Your task to perform on an android device: turn pop-ups off in chrome Image 0: 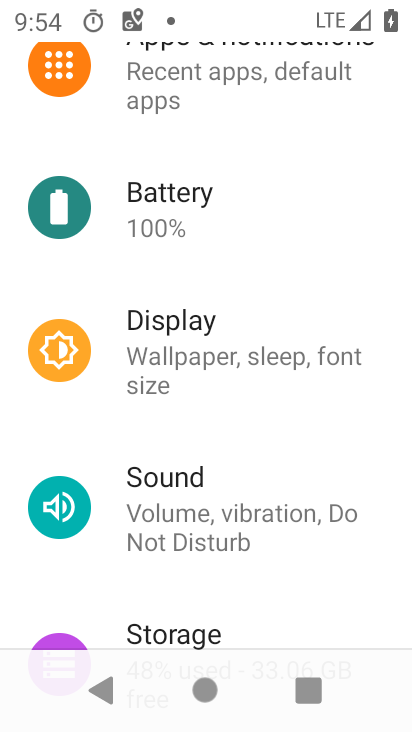
Step 0: press home button
Your task to perform on an android device: turn pop-ups off in chrome Image 1: 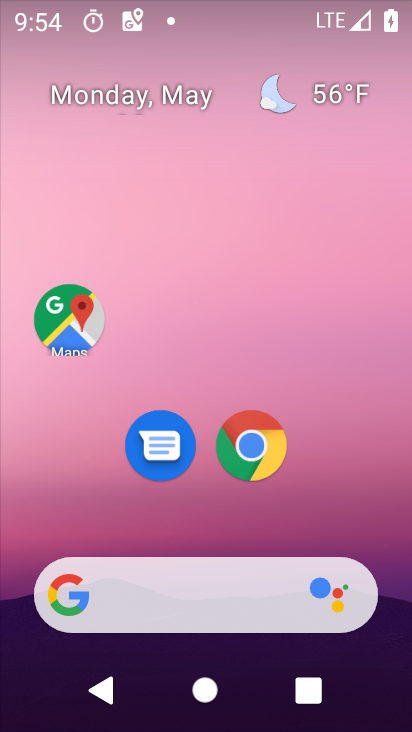
Step 1: click (260, 446)
Your task to perform on an android device: turn pop-ups off in chrome Image 2: 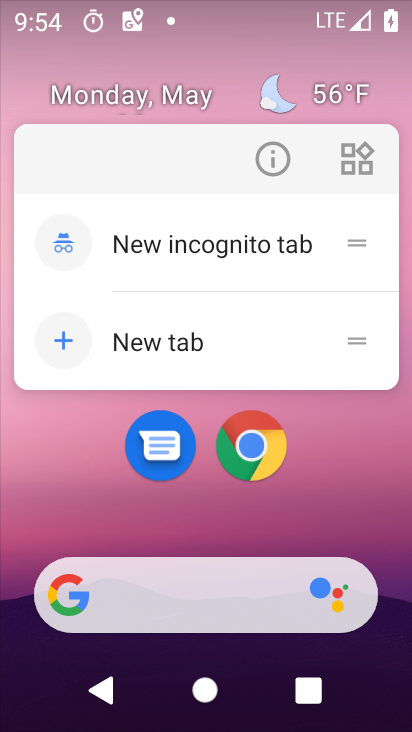
Step 2: click (253, 447)
Your task to perform on an android device: turn pop-ups off in chrome Image 3: 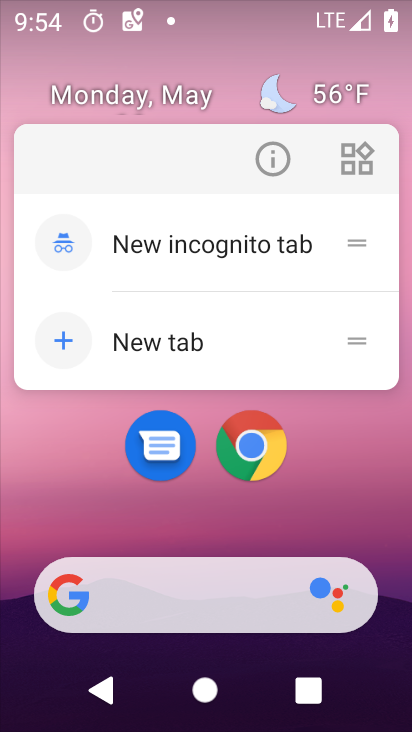
Step 3: click (251, 465)
Your task to perform on an android device: turn pop-ups off in chrome Image 4: 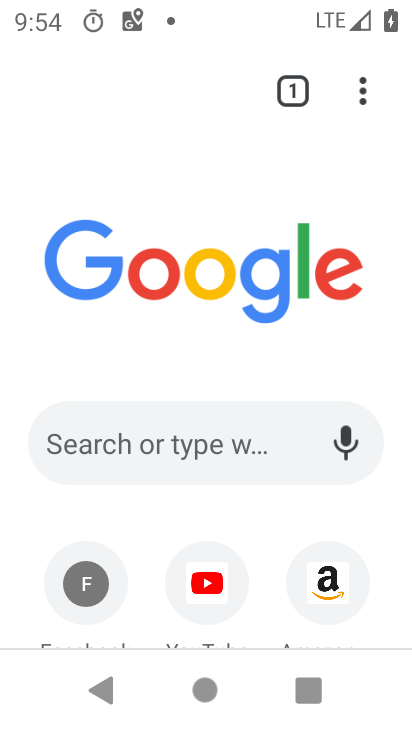
Step 4: drag from (386, 111) to (277, 493)
Your task to perform on an android device: turn pop-ups off in chrome Image 5: 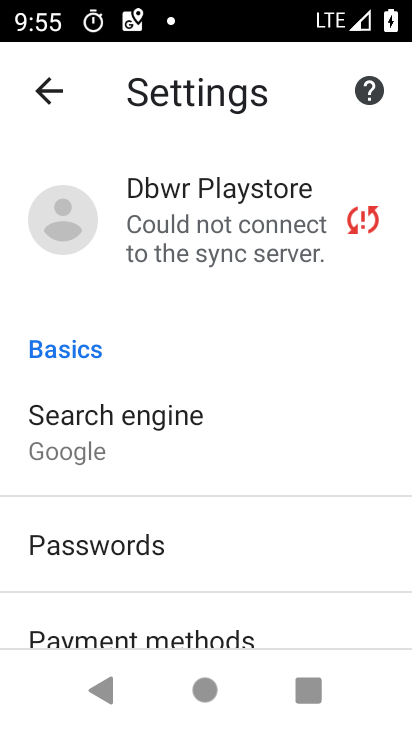
Step 5: drag from (169, 594) to (316, 207)
Your task to perform on an android device: turn pop-ups off in chrome Image 6: 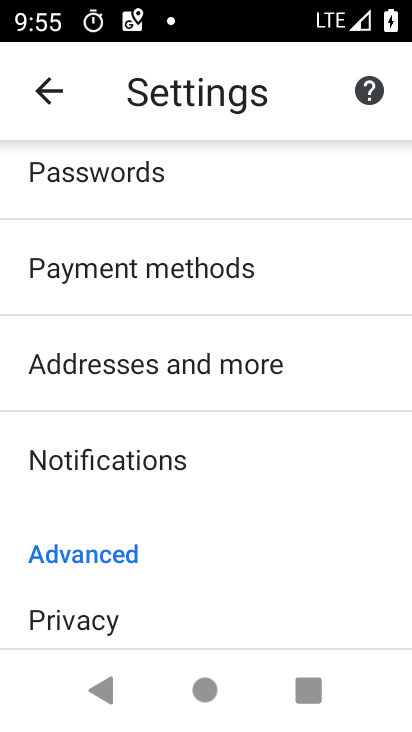
Step 6: drag from (188, 596) to (267, 274)
Your task to perform on an android device: turn pop-ups off in chrome Image 7: 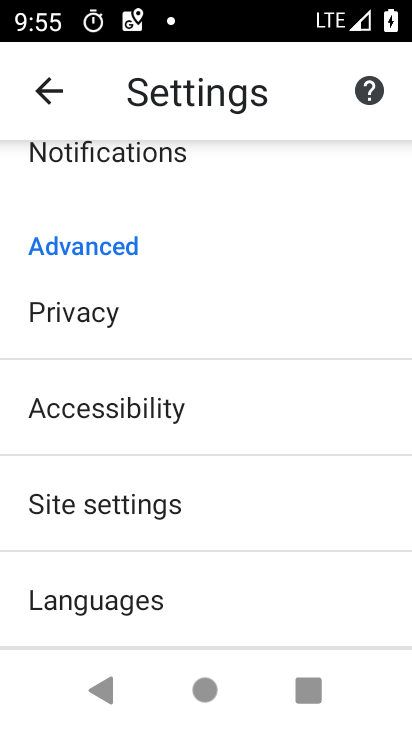
Step 7: click (141, 517)
Your task to perform on an android device: turn pop-ups off in chrome Image 8: 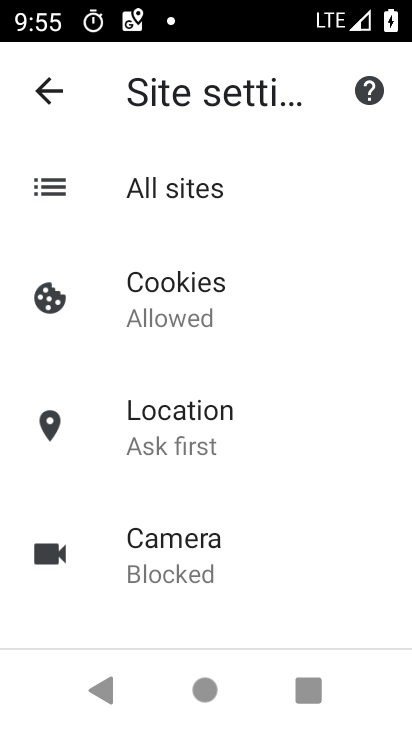
Step 8: drag from (151, 571) to (244, 244)
Your task to perform on an android device: turn pop-ups off in chrome Image 9: 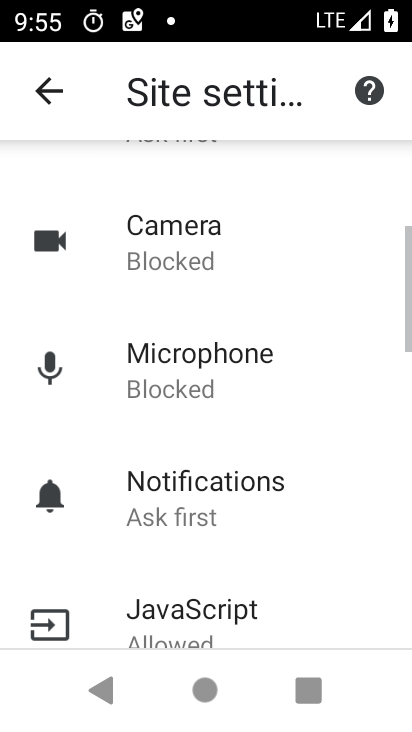
Step 9: drag from (204, 515) to (295, 184)
Your task to perform on an android device: turn pop-ups off in chrome Image 10: 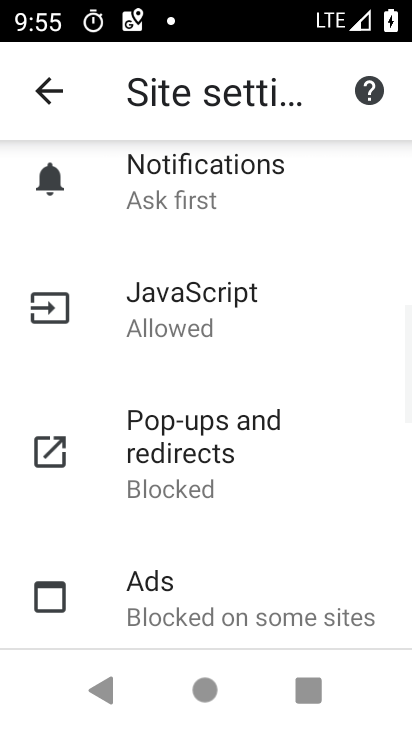
Step 10: click (171, 452)
Your task to perform on an android device: turn pop-ups off in chrome Image 11: 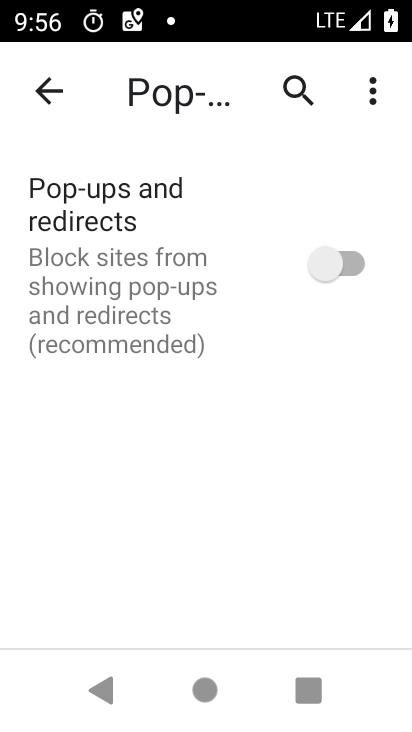
Step 11: task complete